Your task to perform on an android device: Find coffee shops on Maps Image 0: 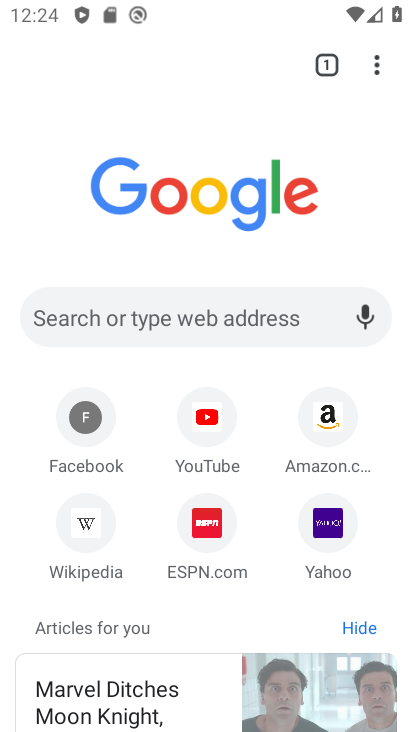
Step 0: press home button
Your task to perform on an android device: Find coffee shops on Maps Image 1: 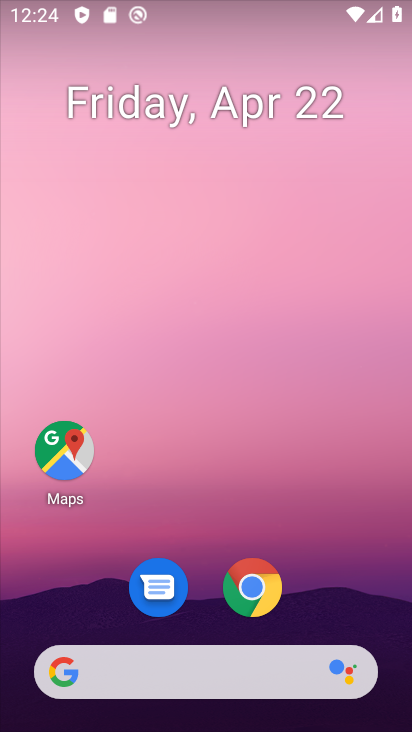
Step 1: drag from (157, 680) to (350, 38)
Your task to perform on an android device: Find coffee shops on Maps Image 2: 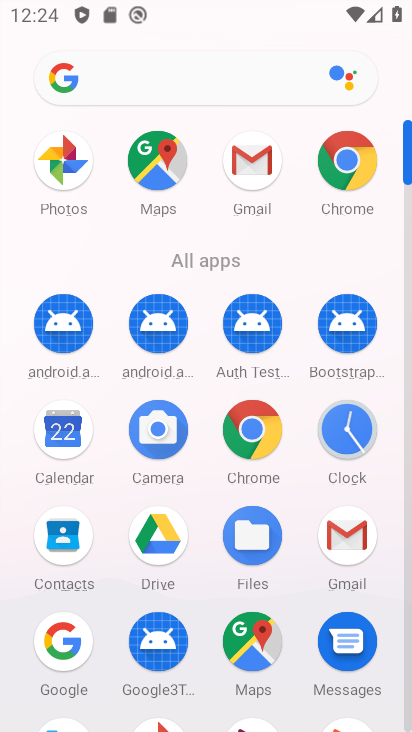
Step 2: click (157, 173)
Your task to perform on an android device: Find coffee shops on Maps Image 3: 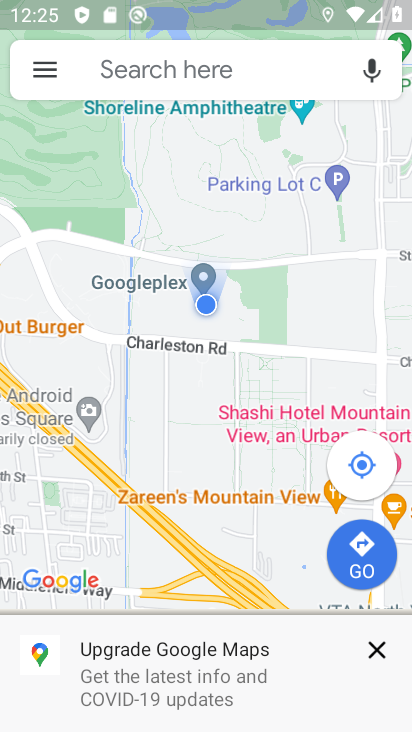
Step 3: click (119, 77)
Your task to perform on an android device: Find coffee shops on Maps Image 4: 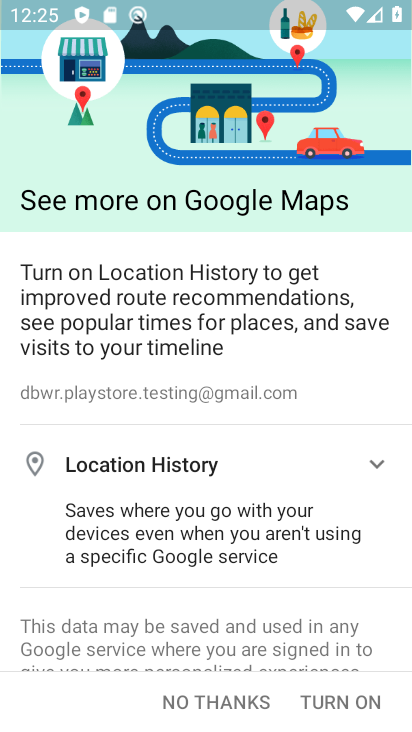
Step 4: click (226, 702)
Your task to perform on an android device: Find coffee shops on Maps Image 5: 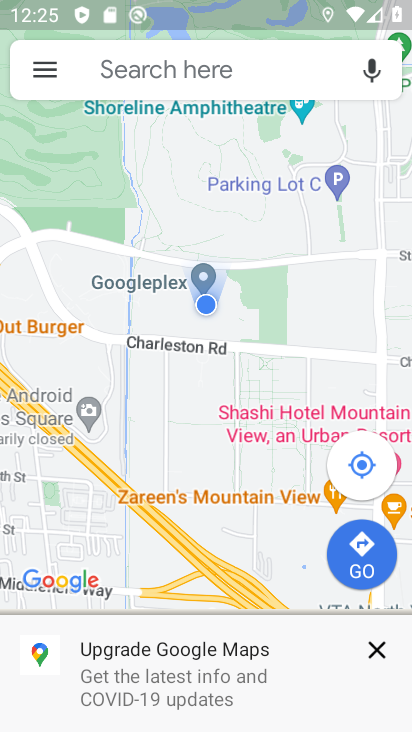
Step 5: click (167, 64)
Your task to perform on an android device: Find coffee shops on Maps Image 6: 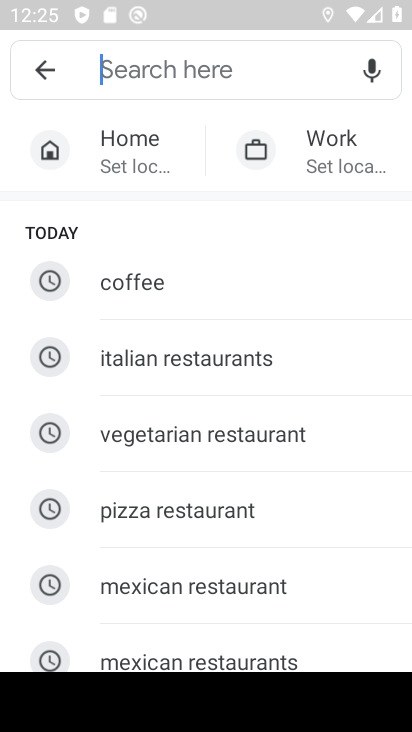
Step 6: click (145, 288)
Your task to perform on an android device: Find coffee shops on Maps Image 7: 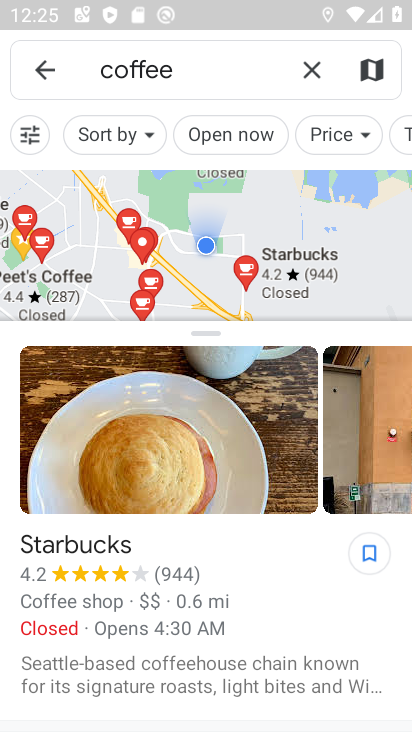
Step 7: task complete